Your task to perform on an android device: find snoozed emails in the gmail app Image 0: 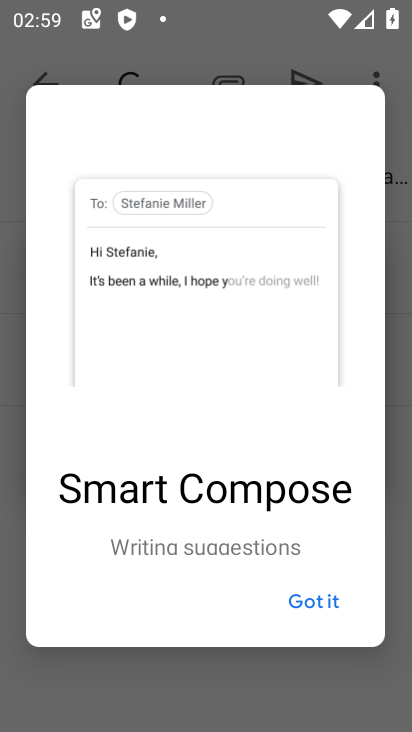
Step 0: press home button
Your task to perform on an android device: find snoozed emails in the gmail app Image 1: 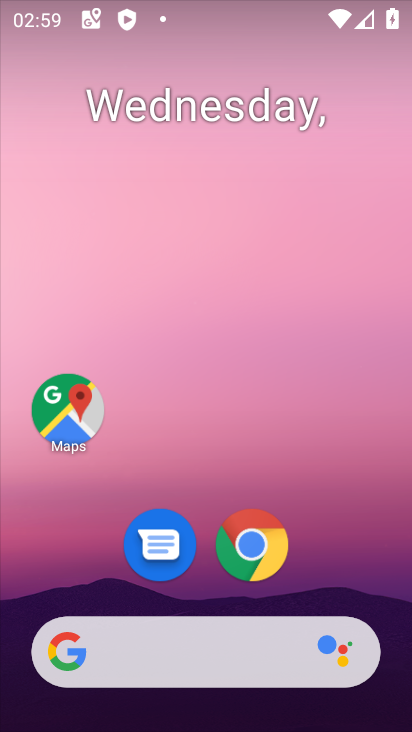
Step 1: drag from (136, 659) to (302, 214)
Your task to perform on an android device: find snoozed emails in the gmail app Image 2: 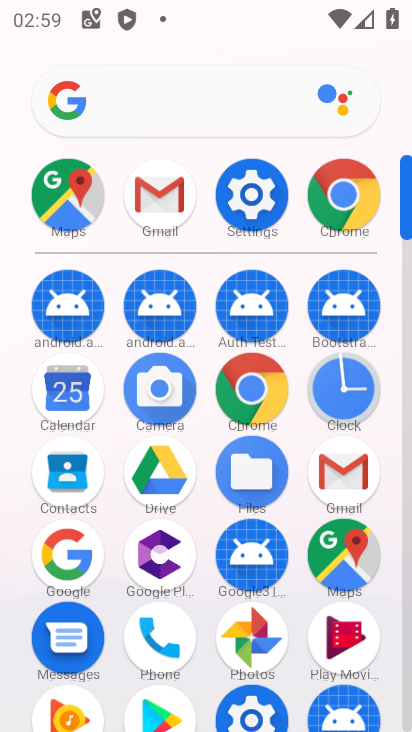
Step 2: click (152, 205)
Your task to perform on an android device: find snoozed emails in the gmail app Image 3: 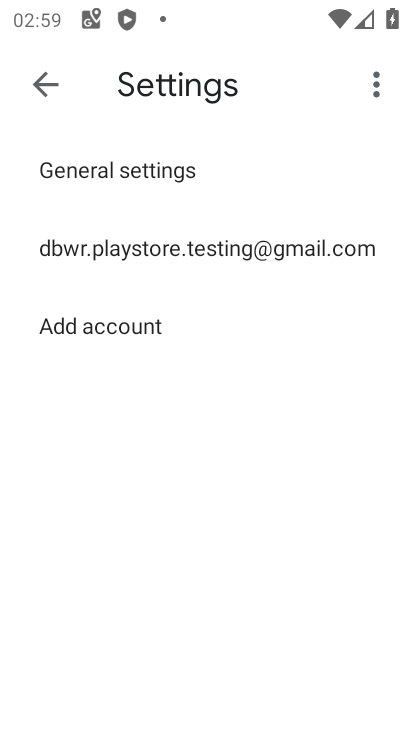
Step 3: click (43, 75)
Your task to perform on an android device: find snoozed emails in the gmail app Image 4: 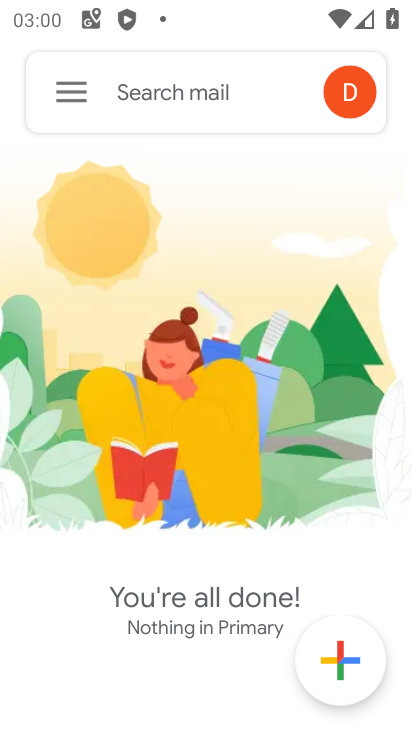
Step 4: click (59, 92)
Your task to perform on an android device: find snoozed emails in the gmail app Image 5: 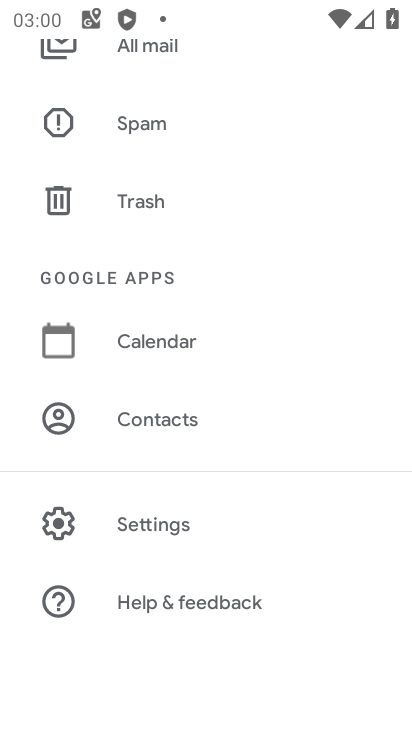
Step 5: drag from (236, 199) to (215, 665)
Your task to perform on an android device: find snoozed emails in the gmail app Image 6: 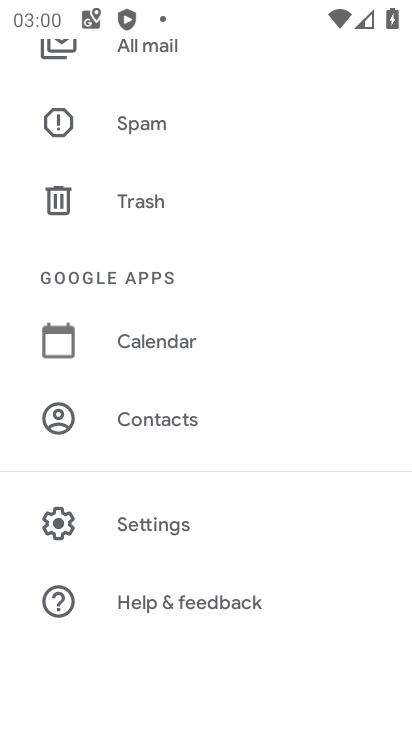
Step 6: drag from (248, 123) to (257, 673)
Your task to perform on an android device: find snoozed emails in the gmail app Image 7: 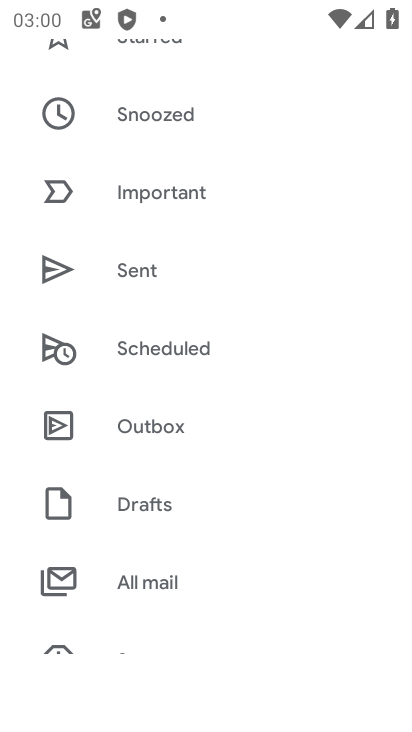
Step 7: click (171, 116)
Your task to perform on an android device: find snoozed emails in the gmail app Image 8: 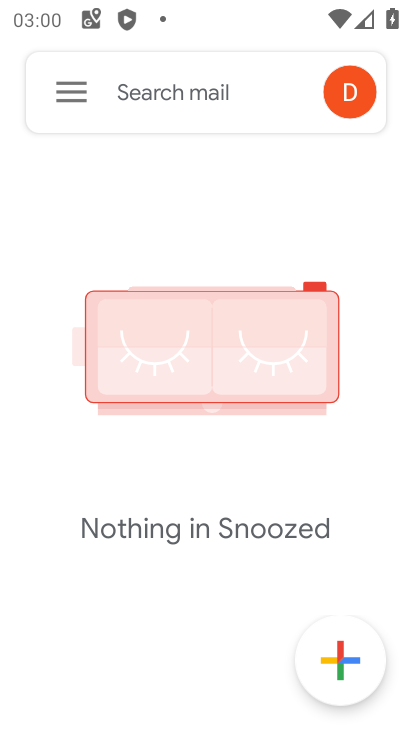
Step 8: task complete